Your task to perform on an android device: open app "Google News" Image 0: 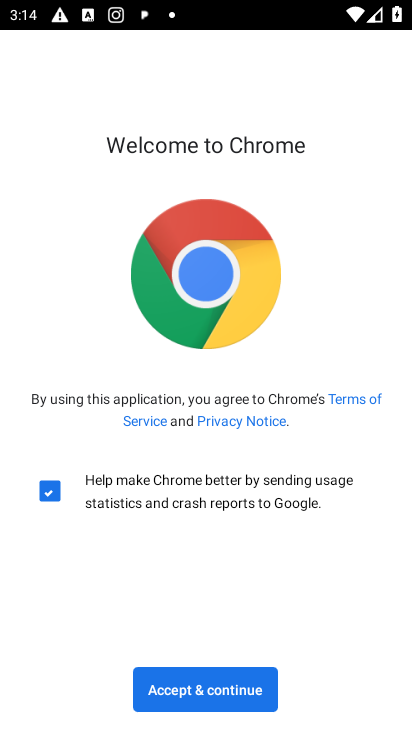
Step 0: press home button
Your task to perform on an android device: open app "Google News" Image 1: 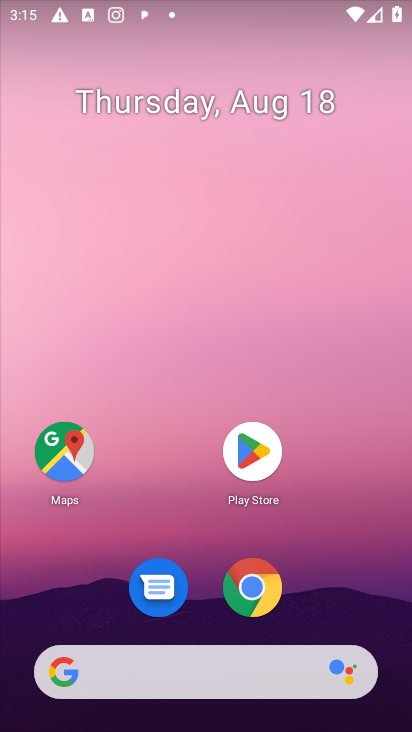
Step 1: click (249, 455)
Your task to perform on an android device: open app "Google News" Image 2: 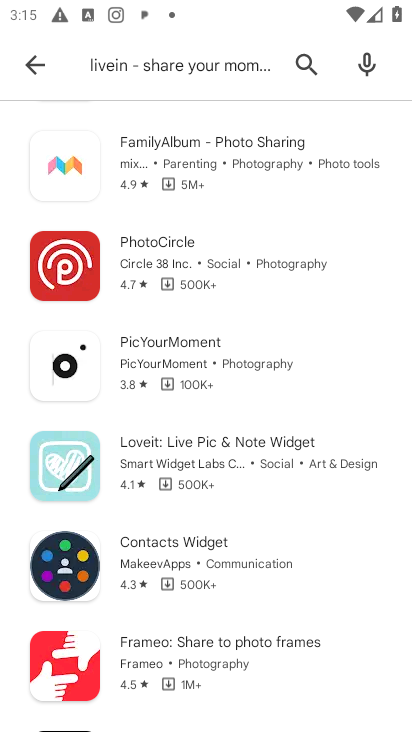
Step 2: click (306, 55)
Your task to perform on an android device: open app "Google News" Image 3: 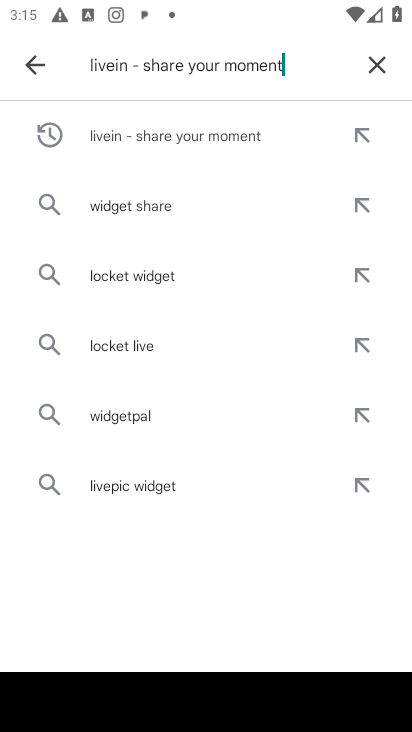
Step 3: click (379, 69)
Your task to perform on an android device: open app "Google News" Image 4: 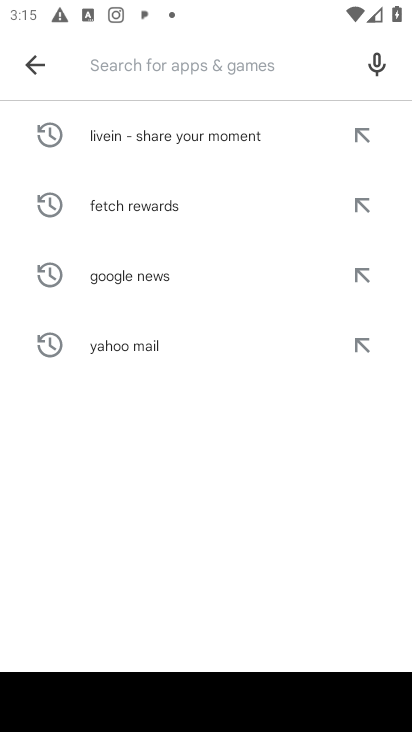
Step 4: type "Google News"
Your task to perform on an android device: open app "Google News" Image 5: 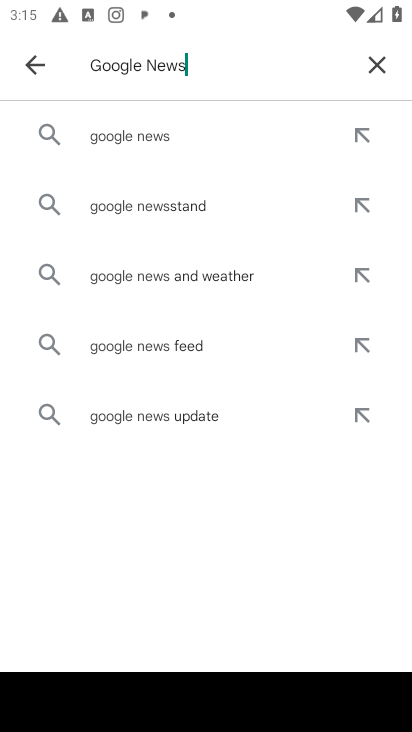
Step 5: click (137, 131)
Your task to perform on an android device: open app "Google News" Image 6: 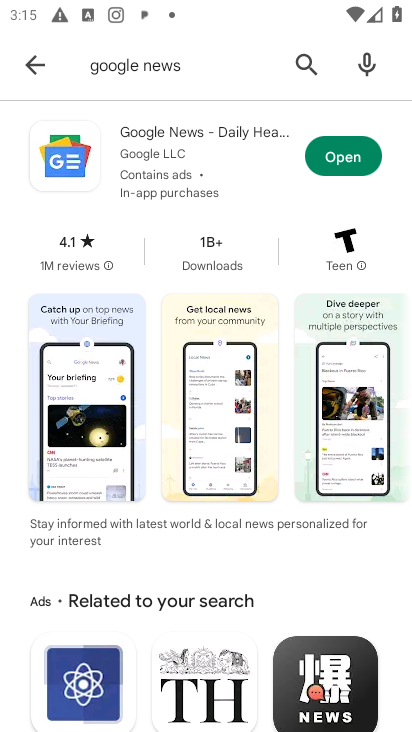
Step 6: click (337, 163)
Your task to perform on an android device: open app "Google News" Image 7: 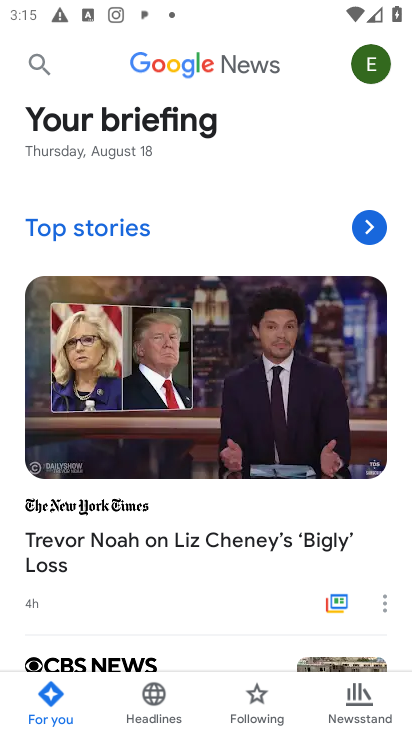
Step 7: task complete